Your task to perform on an android device: turn on notifications settings in the gmail app Image 0: 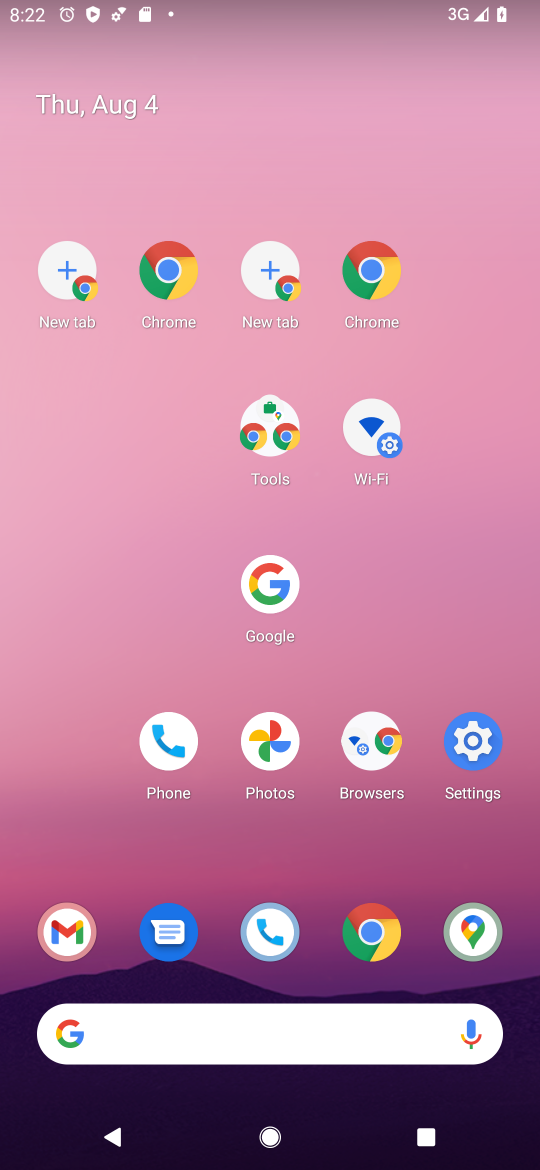
Step 0: click (31, 58)
Your task to perform on an android device: turn on notifications settings in the gmail app Image 1: 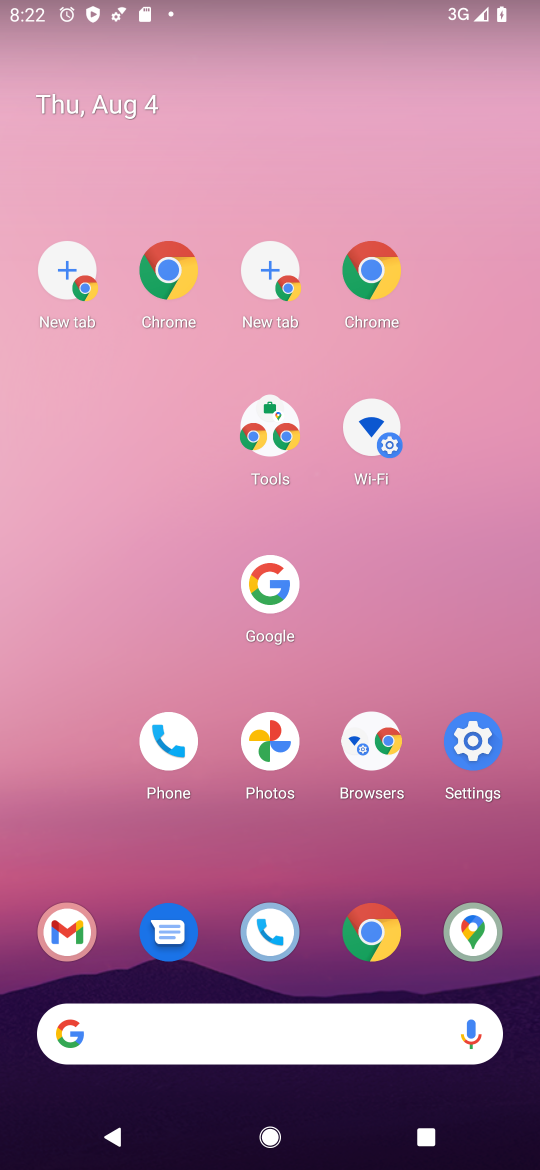
Step 1: drag from (317, 1010) to (216, 337)
Your task to perform on an android device: turn on notifications settings in the gmail app Image 2: 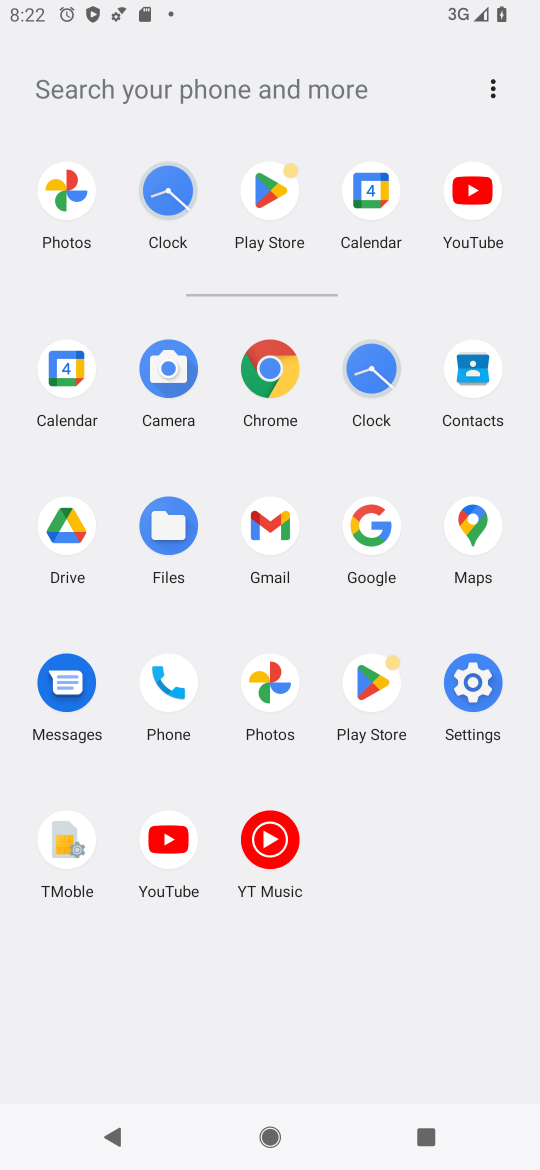
Step 2: drag from (124, 1043) to (83, 732)
Your task to perform on an android device: turn on notifications settings in the gmail app Image 3: 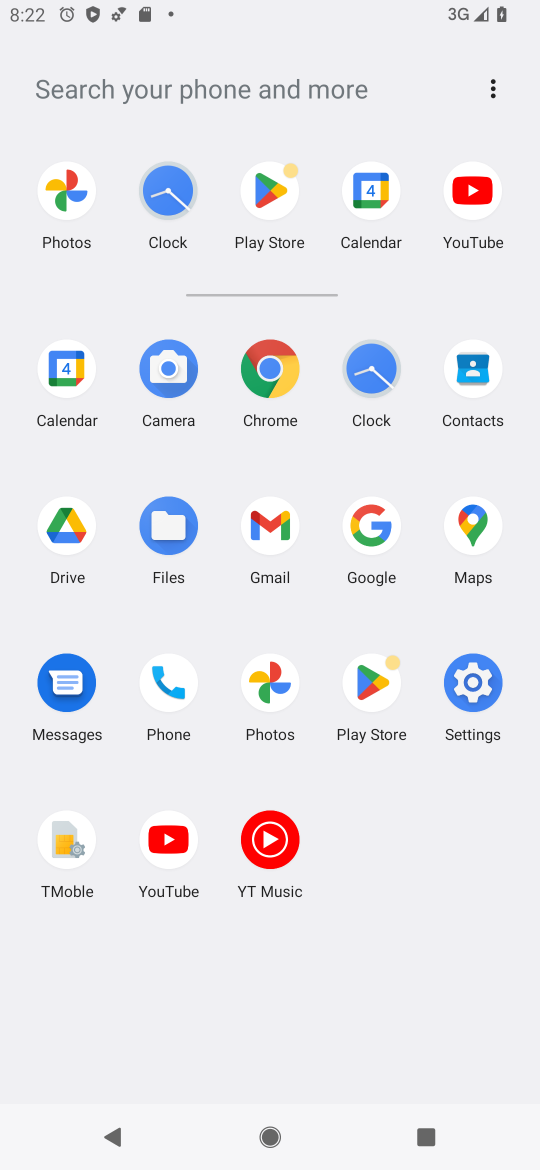
Step 3: click (270, 522)
Your task to perform on an android device: turn on notifications settings in the gmail app Image 4: 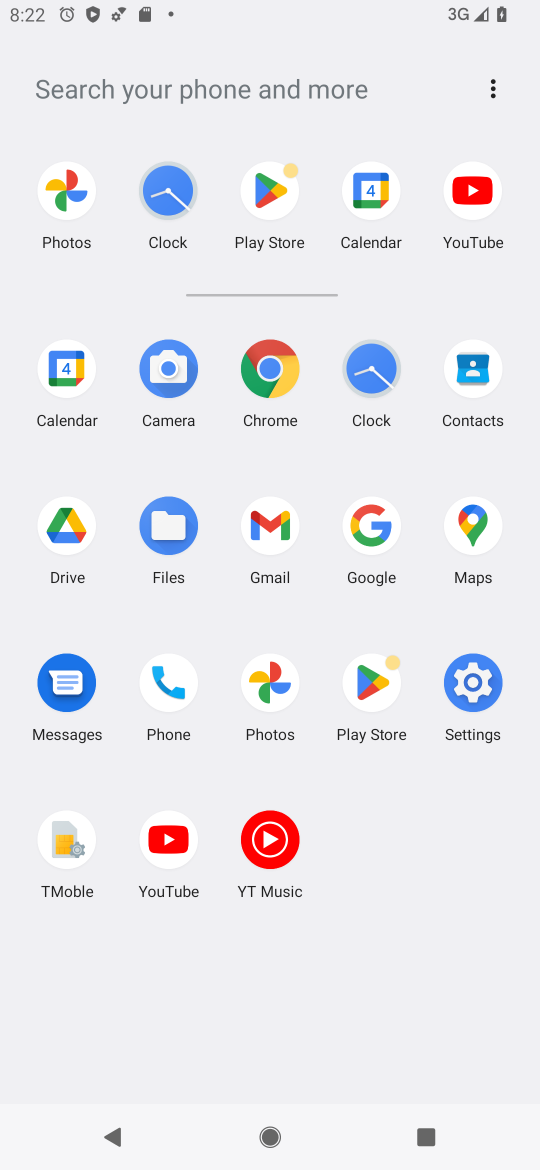
Step 4: click (270, 522)
Your task to perform on an android device: turn on notifications settings in the gmail app Image 5: 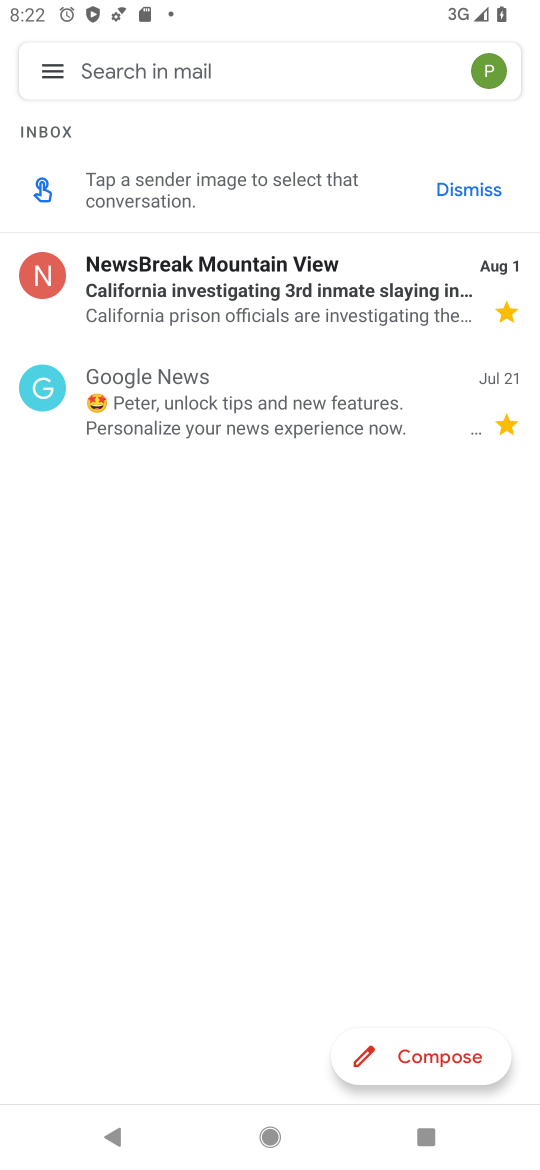
Step 5: click (52, 71)
Your task to perform on an android device: turn on notifications settings in the gmail app Image 6: 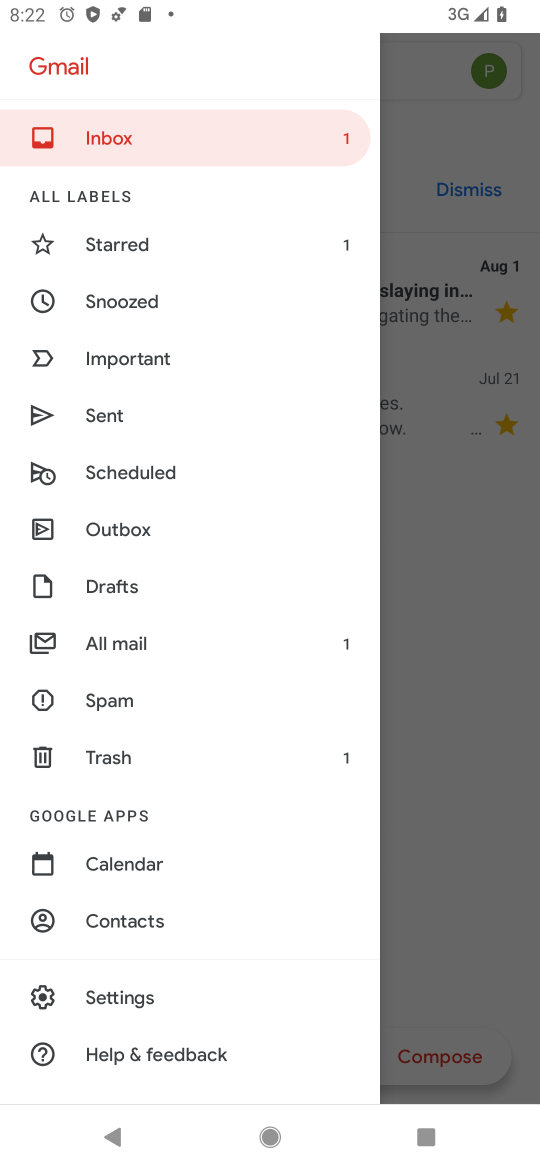
Step 6: click (452, 708)
Your task to perform on an android device: turn on notifications settings in the gmail app Image 7: 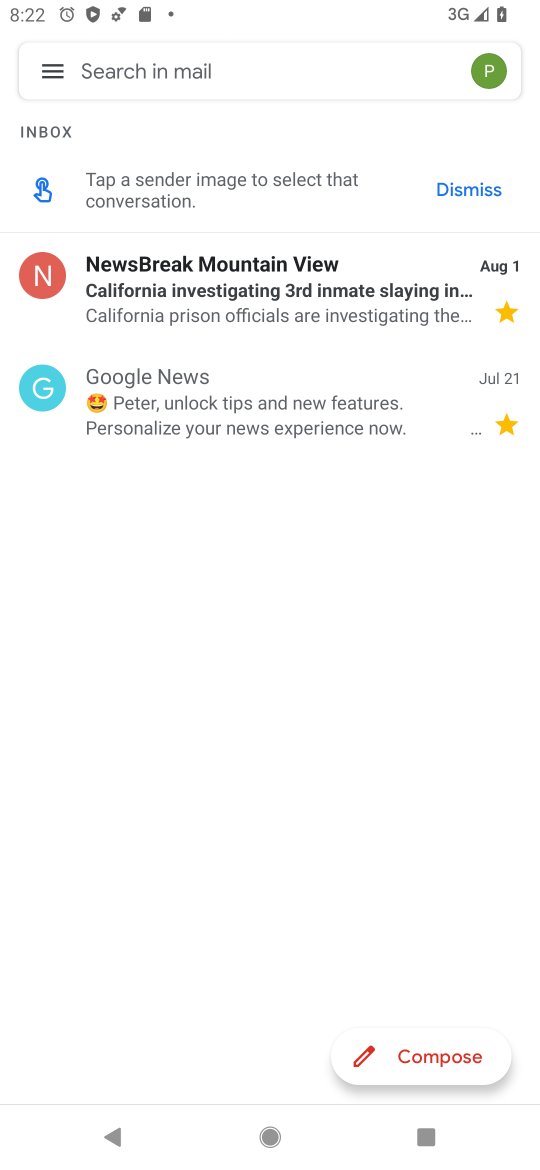
Step 7: click (46, 63)
Your task to perform on an android device: turn on notifications settings in the gmail app Image 8: 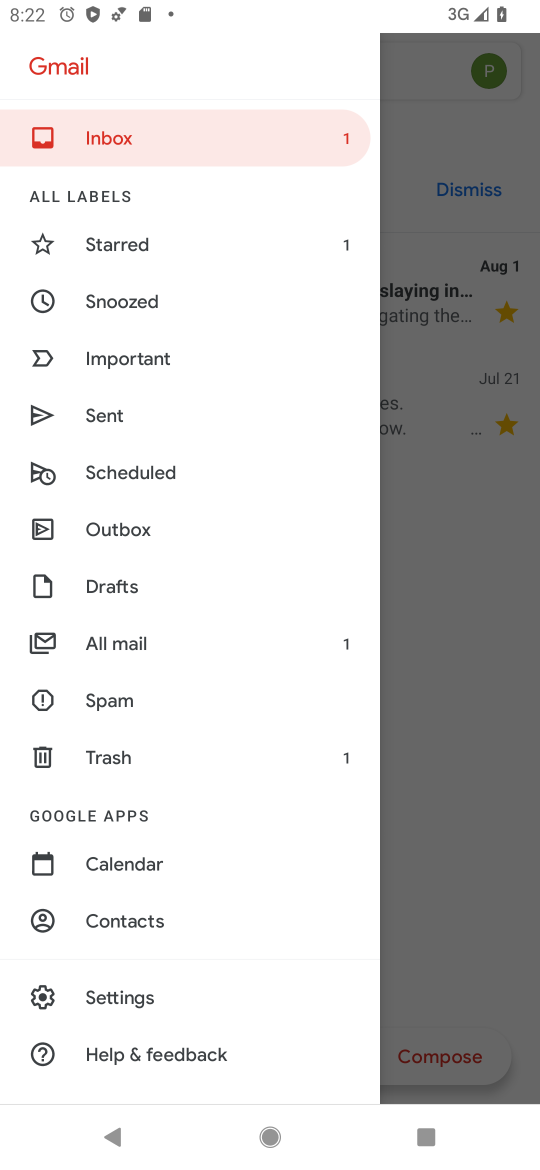
Step 8: click (122, 1000)
Your task to perform on an android device: turn on notifications settings in the gmail app Image 9: 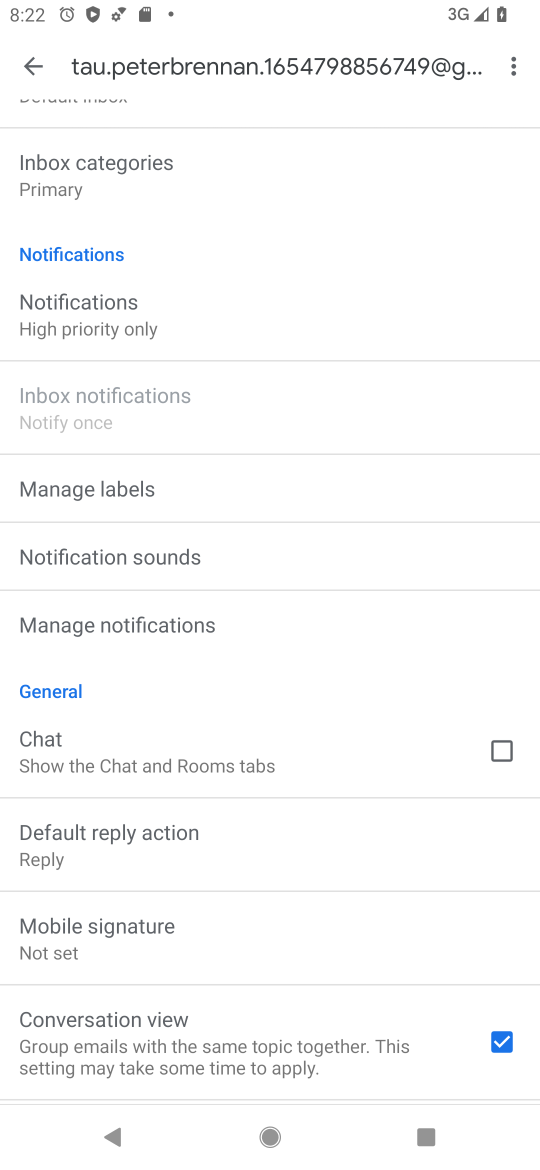
Step 9: click (71, 326)
Your task to perform on an android device: turn on notifications settings in the gmail app Image 10: 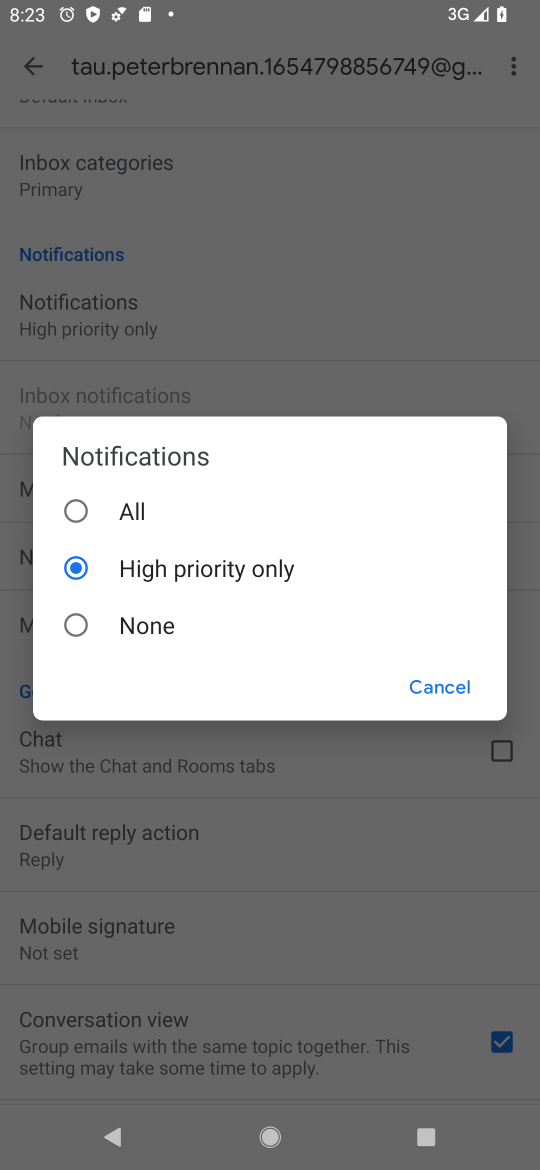
Step 10: click (73, 498)
Your task to perform on an android device: turn on notifications settings in the gmail app Image 11: 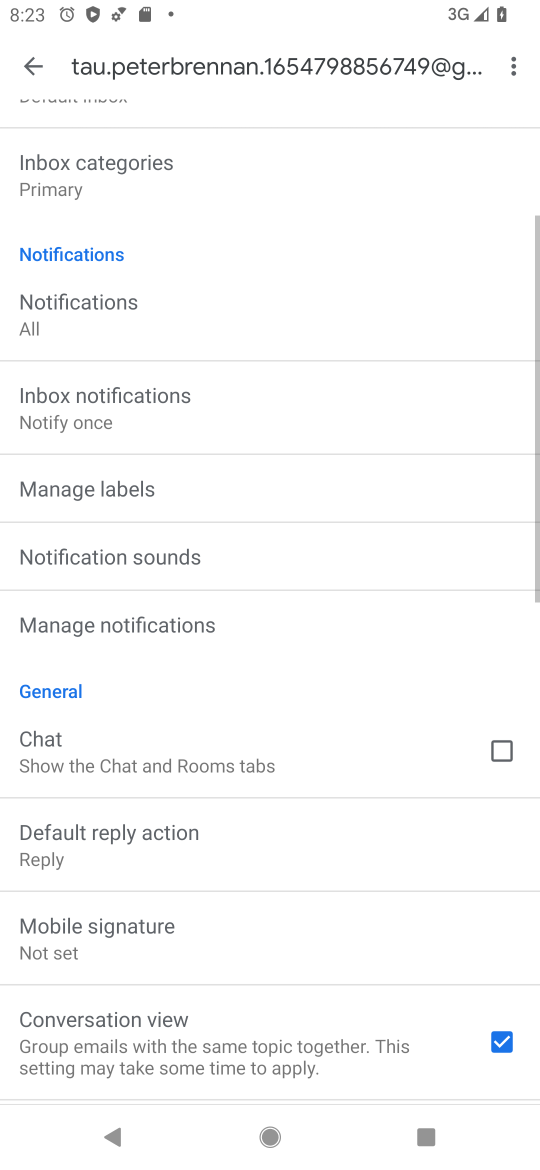
Step 11: task complete